Your task to perform on an android device: See recent photos Image 0: 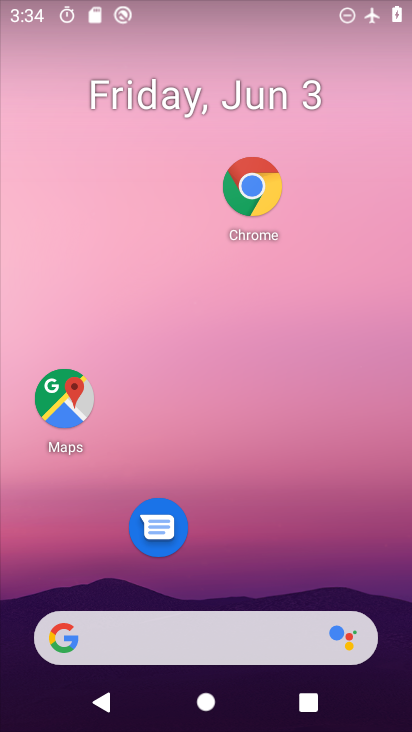
Step 0: click (248, 188)
Your task to perform on an android device: See recent photos Image 1: 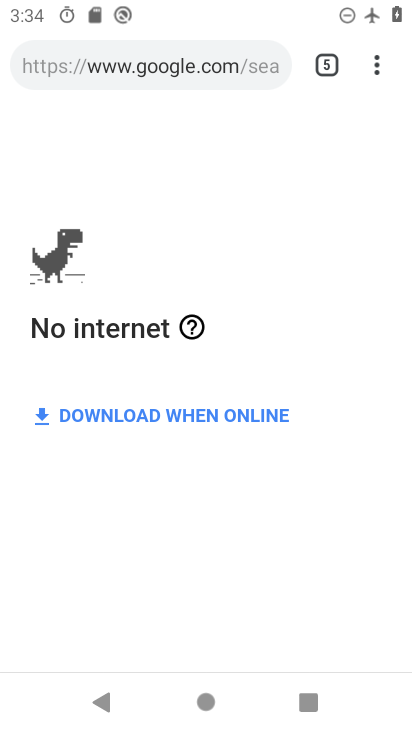
Step 1: task complete